Your task to perform on an android device: uninstall "DuckDuckGo Privacy Browser" Image 0: 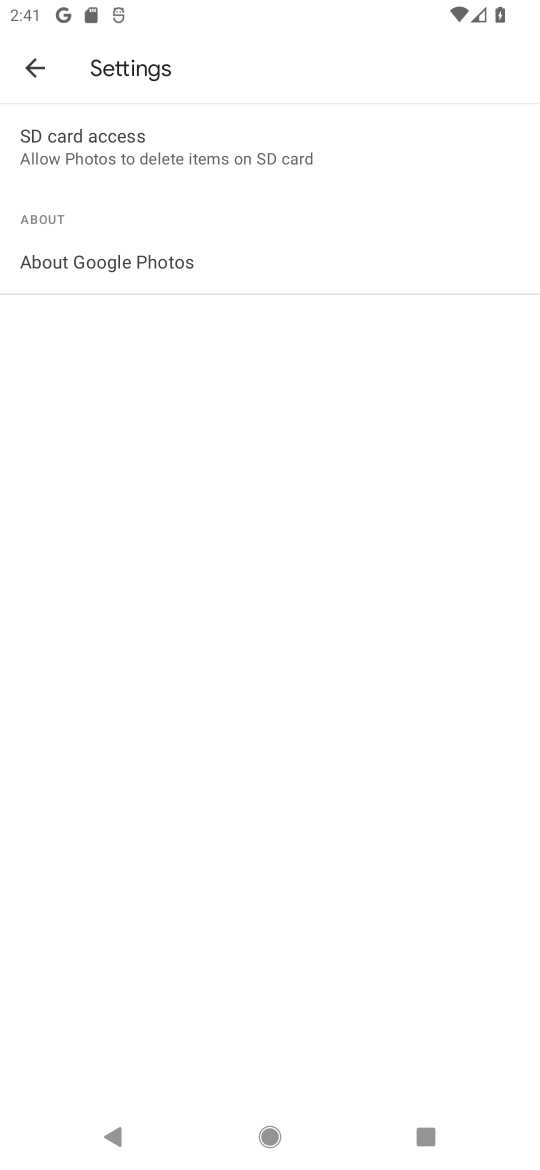
Step 0: press home button
Your task to perform on an android device: uninstall "DuckDuckGo Privacy Browser" Image 1: 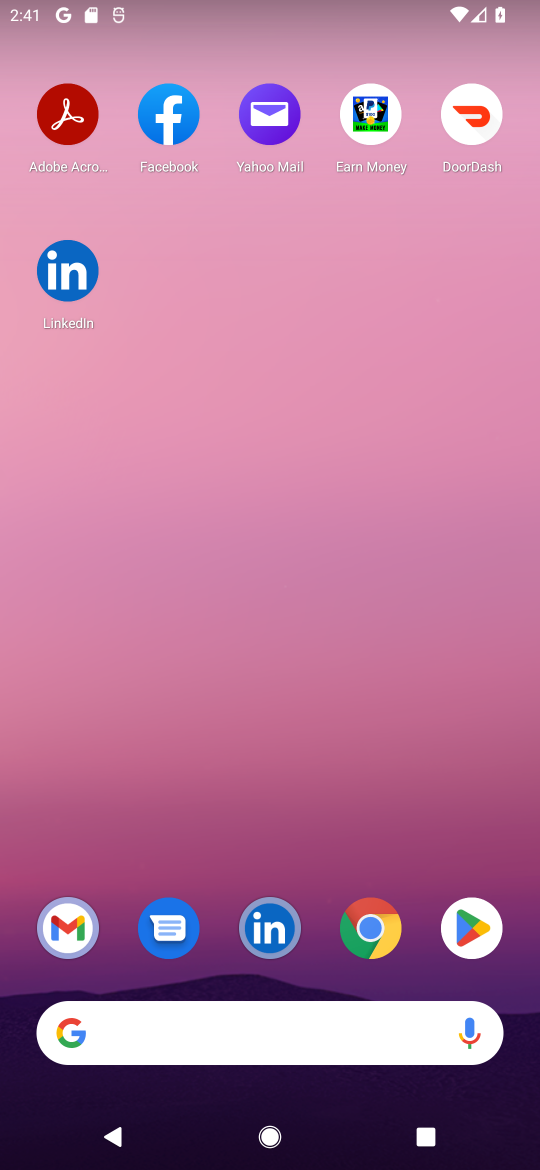
Step 1: click (475, 932)
Your task to perform on an android device: uninstall "DuckDuckGo Privacy Browser" Image 2: 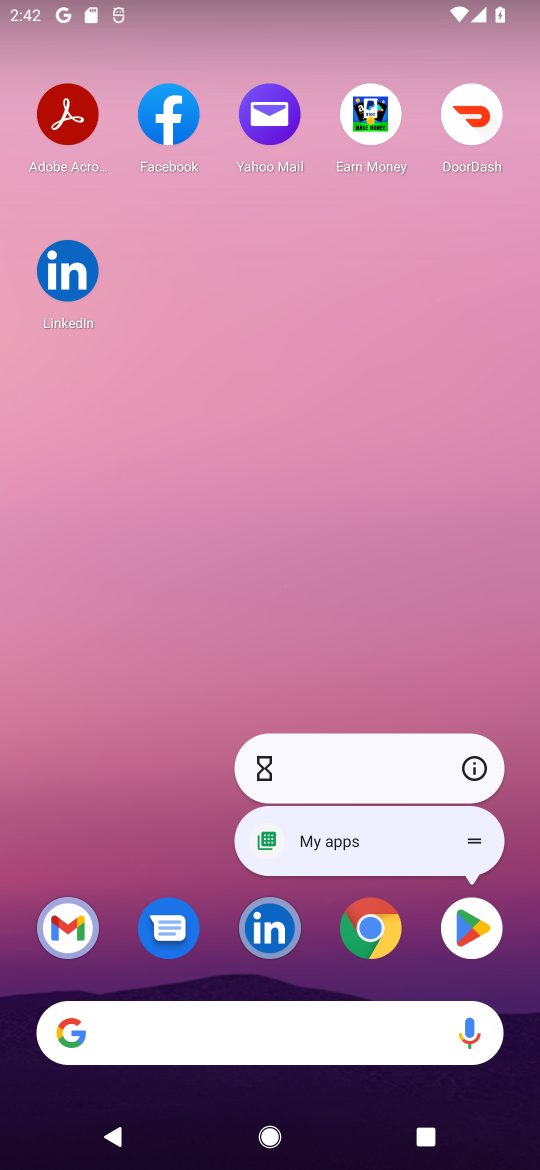
Step 2: click (473, 929)
Your task to perform on an android device: uninstall "DuckDuckGo Privacy Browser" Image 3: 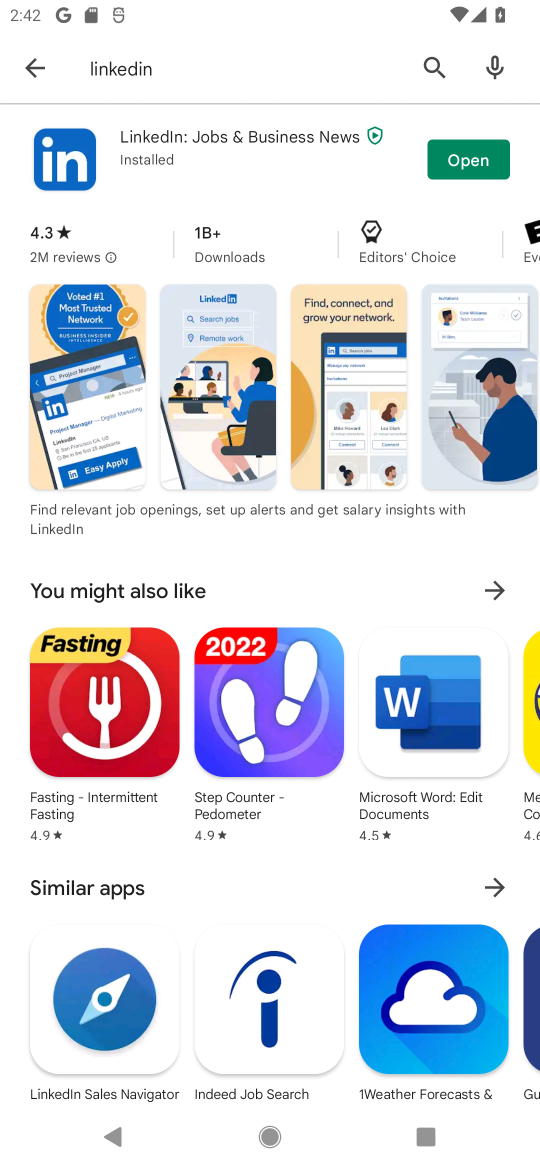
Step 3: click (413, 59)
Your task to perform on an android device: uninstall "DuckDuckGo Privacy Browser" Image 4: 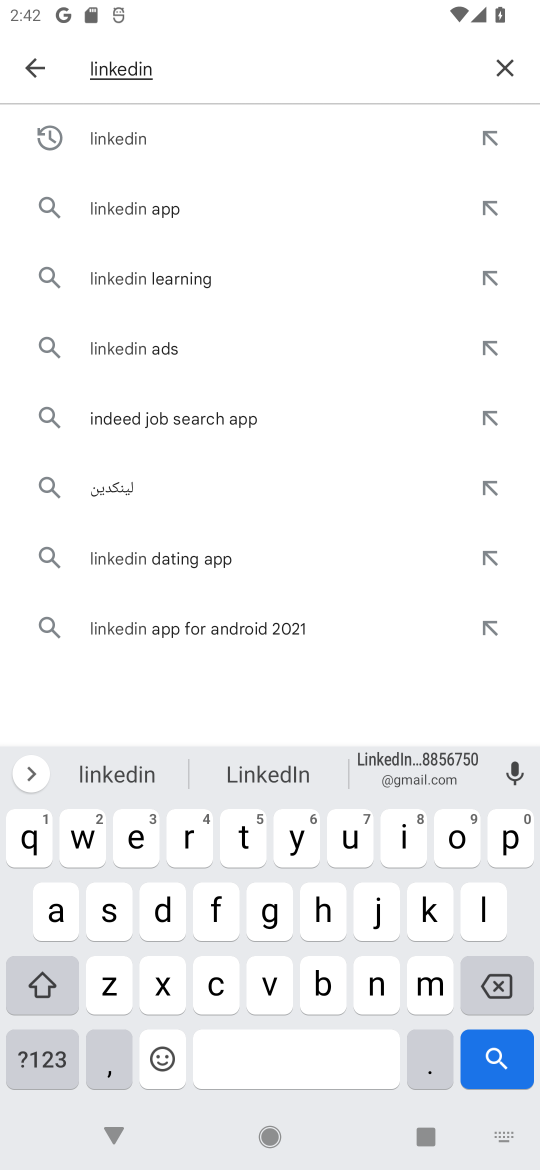
Step 4: click (502, 60)
Your task to perform on an android device: uninstall "DuckDuckGo Privacy Browser" Image 5: 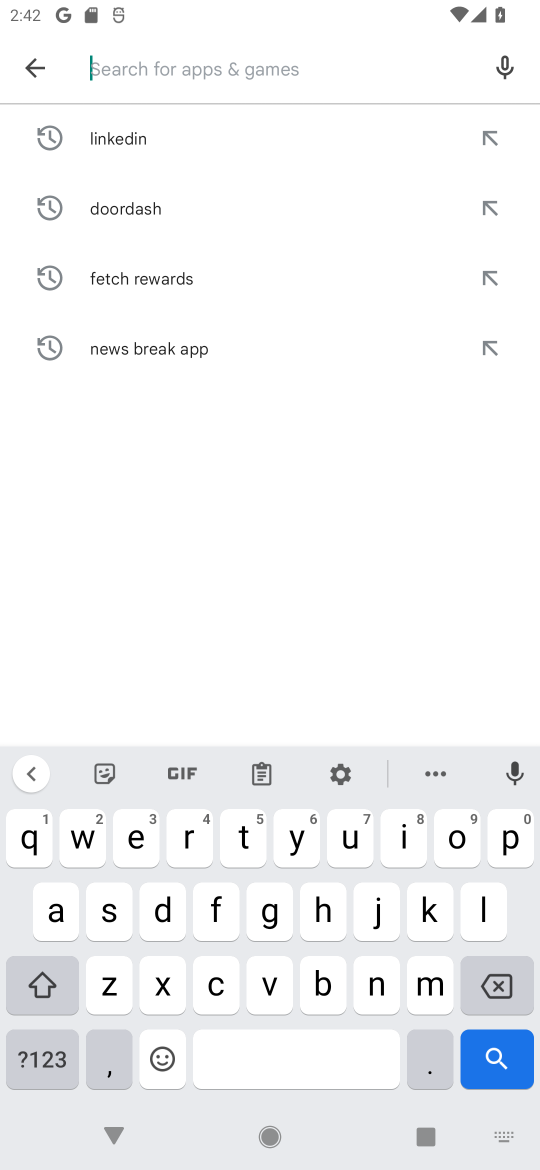
Step 5: click (152, 918)
Your task to perform on an android device: uninstall "DuckDuckGo Privacy Browser" Image 6: 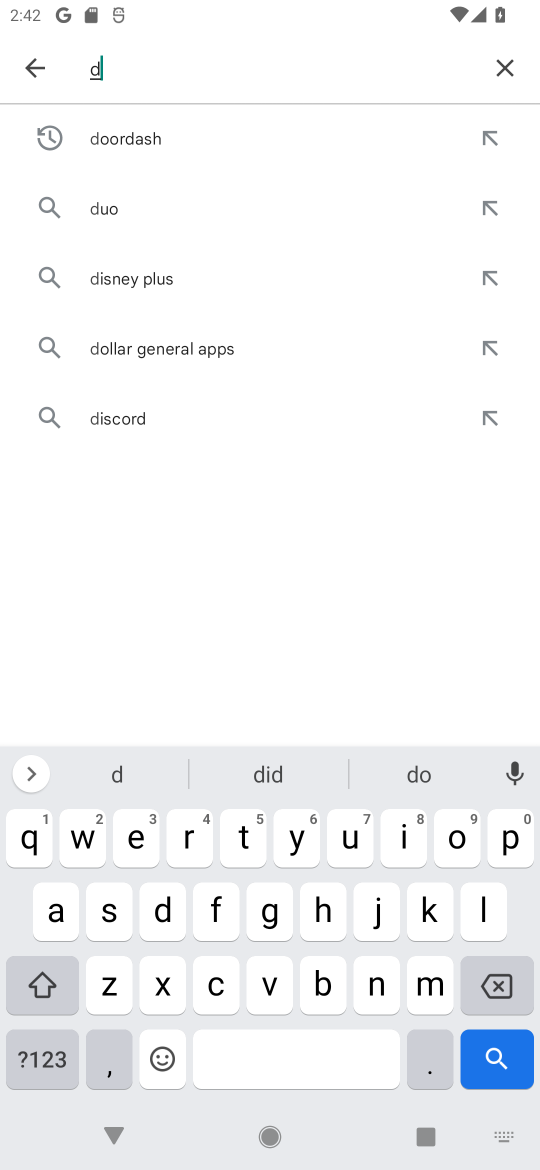
Step 6: click (349, 839)
Your task to perform on an android device: uninstall "DuckDuckGo Privacy Browser" Image 7: 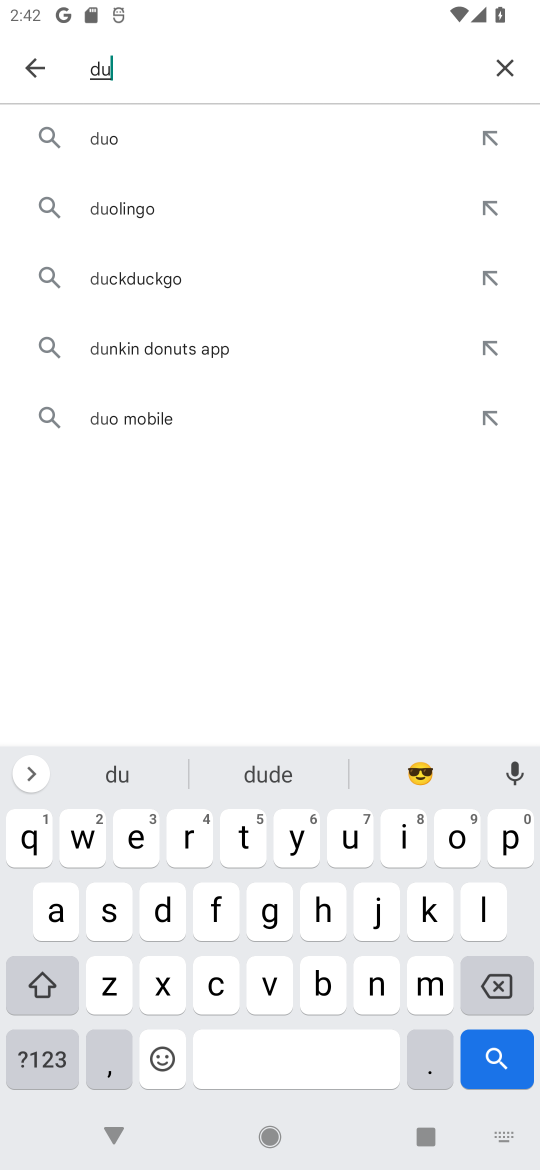
Step 7: click (209, 981)
Your task to perform on an android device: uninstall "DuckDuckGo Privacy Browser" Image 8: 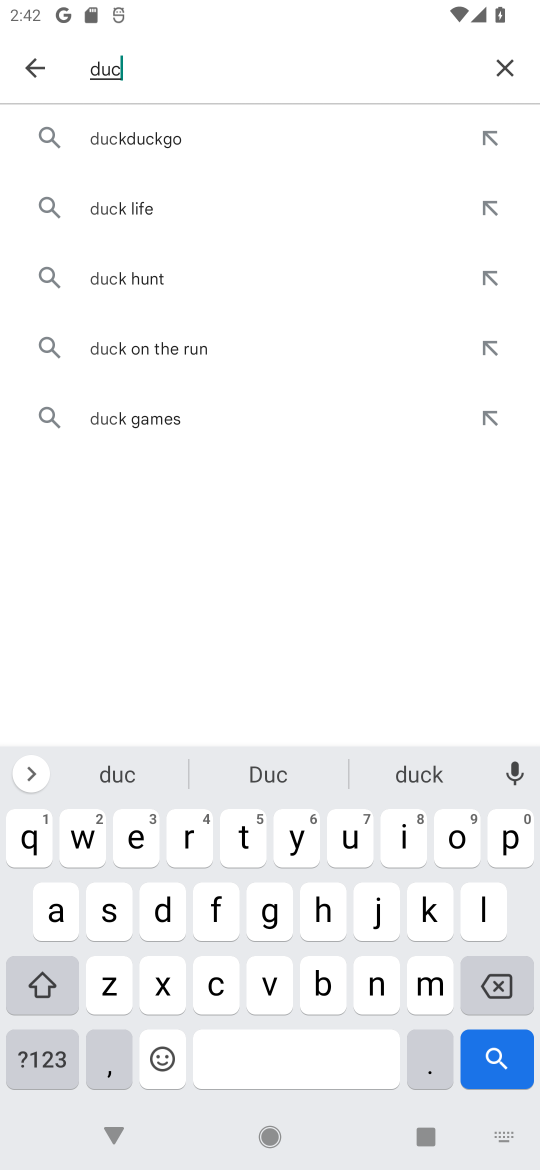
Step 8: click (158, 146)
Your task to perform on an android device: uninstall "DuckDuckGo Privacy Browser" Image 9: 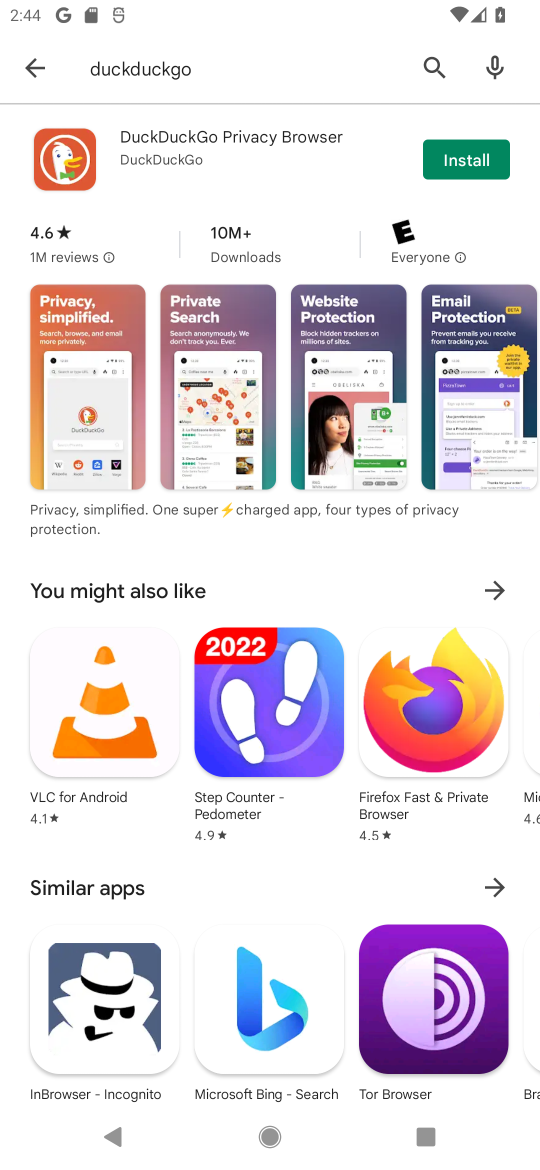
Step 9: task complete